Your task to perform on an android device: Open maps Image 0: 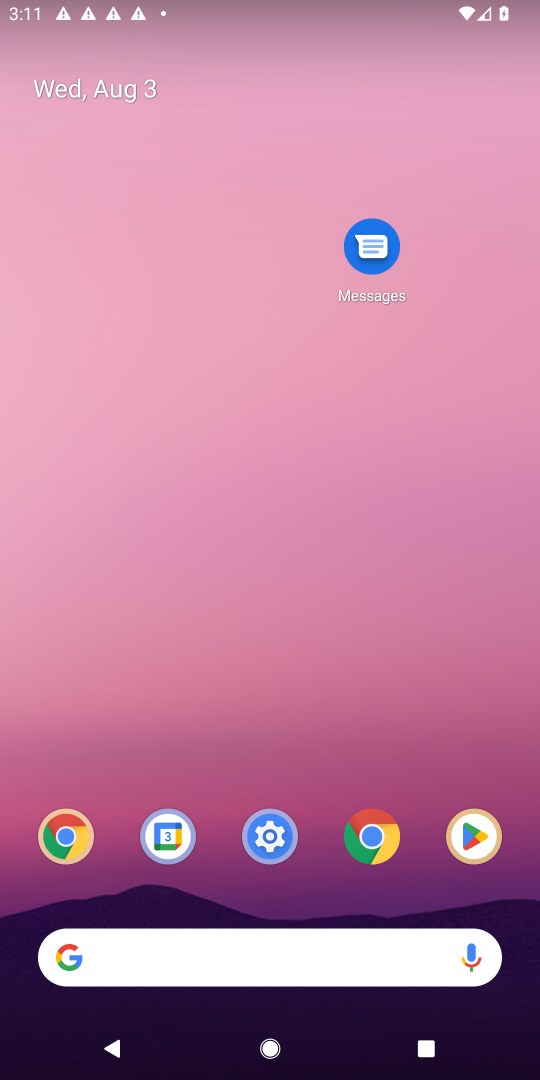
Step 0: drag from (51, 1035) to (364, 194)
Your task to perform on an android device: Open maps Image 1: 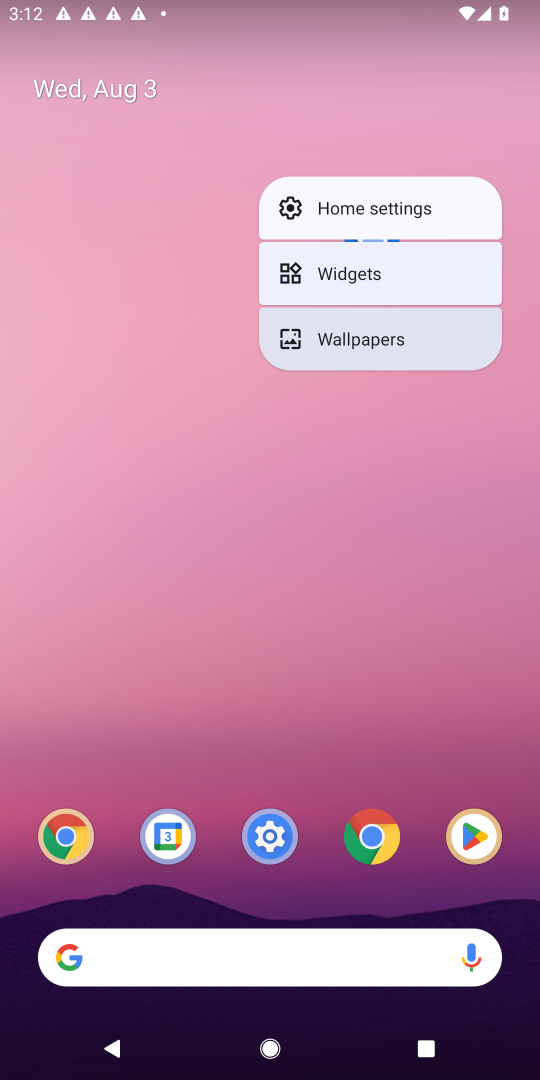
Step 1: drag from (172, 713) to (269, 272)
Your task to perform on an android device: Open maps Image 2: 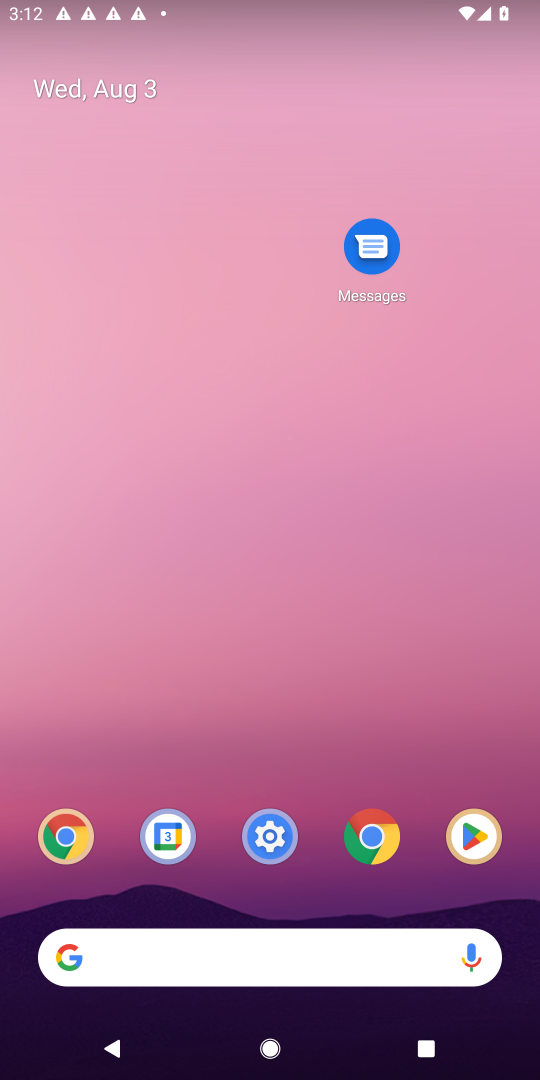
Step 2: drag from (94, 891) to (265, 0)
Your task to perform on an android device: Open maps Image 3: 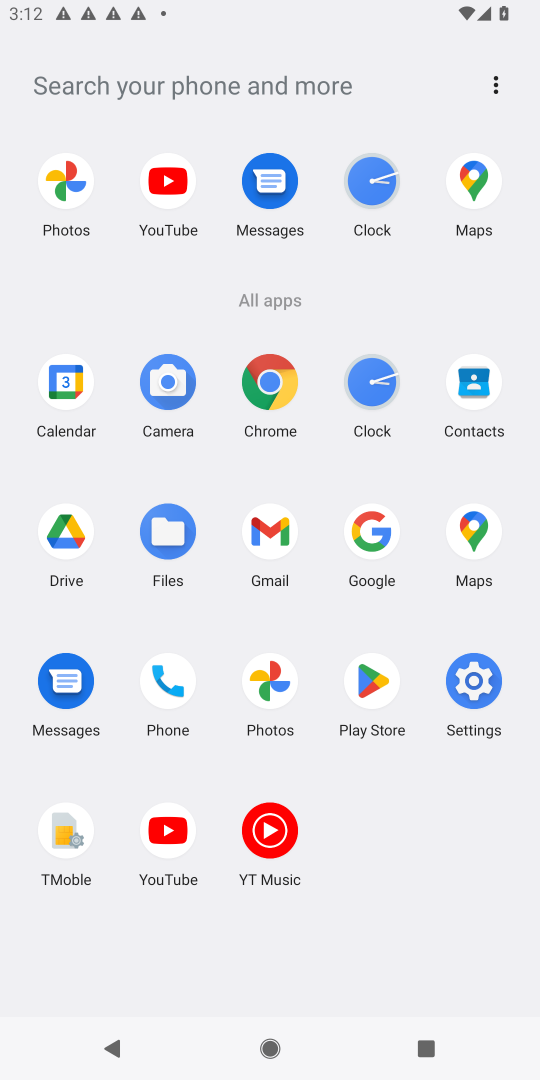
Step 3: click (466, 180)
Your task to perform on an android device: Open maps Image 4: 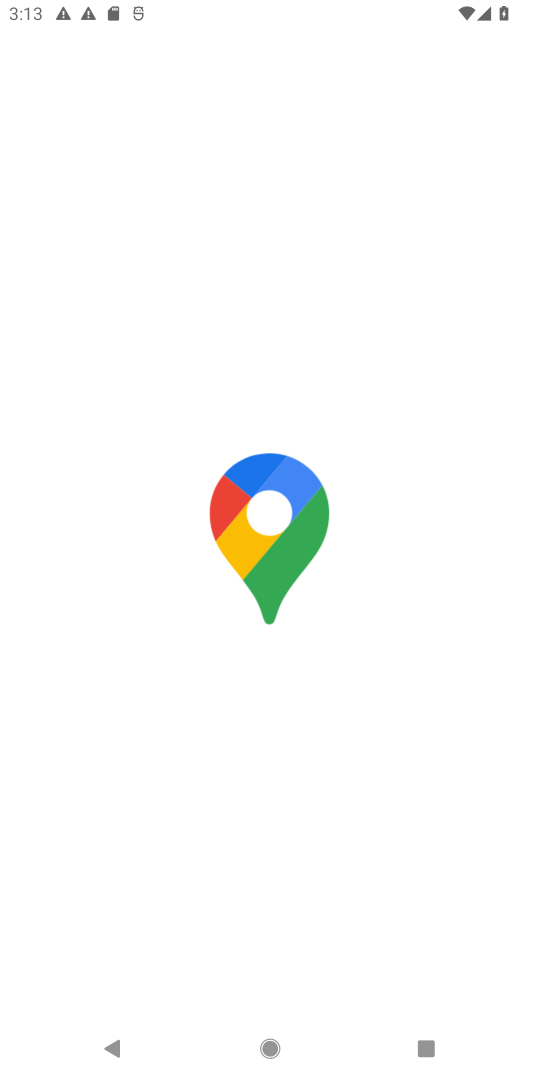
Step 4: task complete